Your task to perform on an android device: choose inbox layout in the gmail app Image 0: 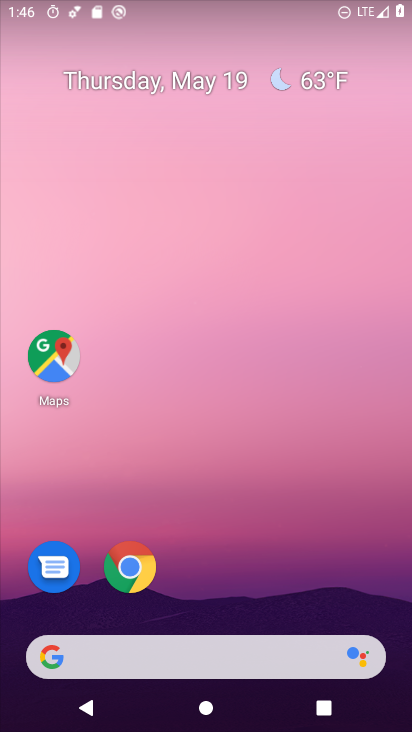
Step 0: press home button
Your task to perform on an android device: choose inbox layout in the gmail app Image 1: 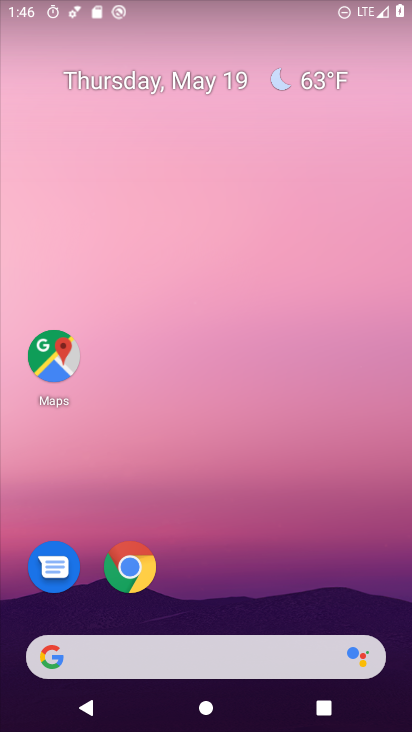
Step 1: drag from (158, 663) to (302, 108)
Your task to perform on an android device: choose inbox layout in the gmail app Image 2: 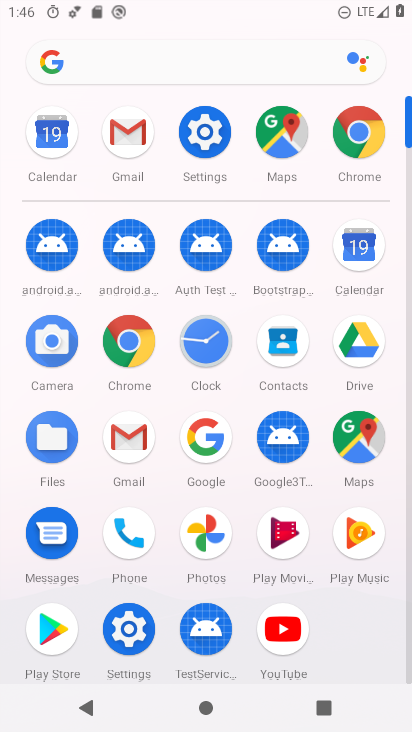
Step 2: click (129, 142)
Your task to perform on an android device: choose inbox layout in the gmail app Image 3: 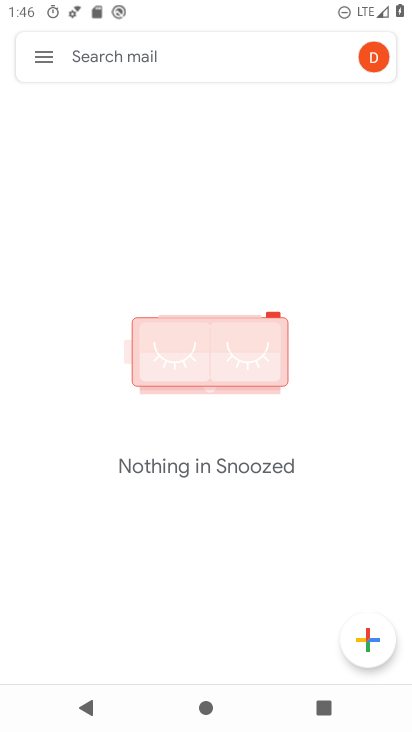
Step 3: click (43, 54)
Your task to perform on an android device: choose inbox layout in the gmail app Image 4: 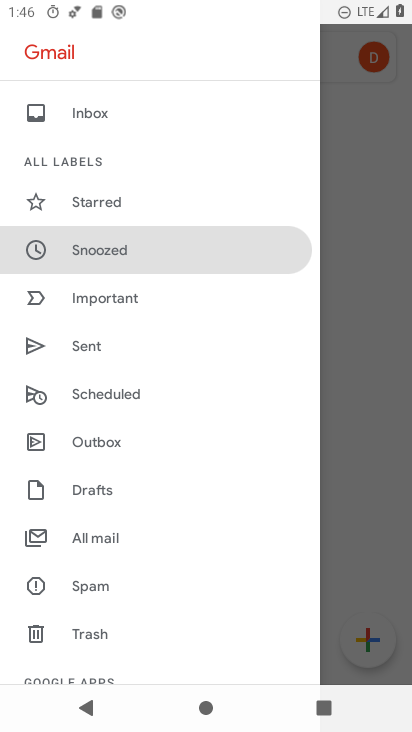
Step 4: drag from (168, 667) to (308, 239)
Your task to perform on an android device: choose inbox layout in the gmail app Image 5: 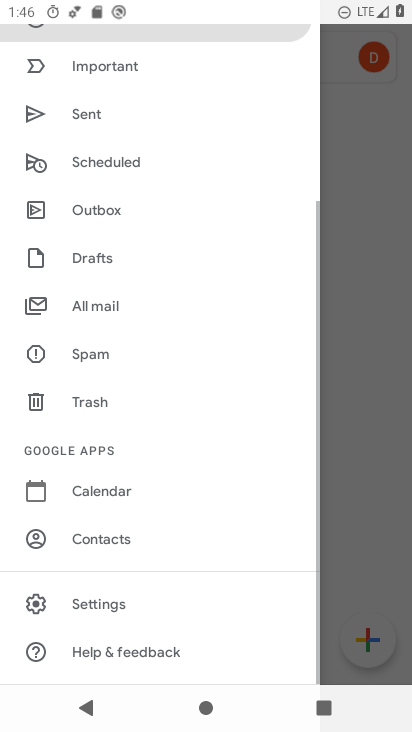
Step 5: click (115, 604)
Your task to perform on an android device: choose inbox layout in the gmail app Image 6: 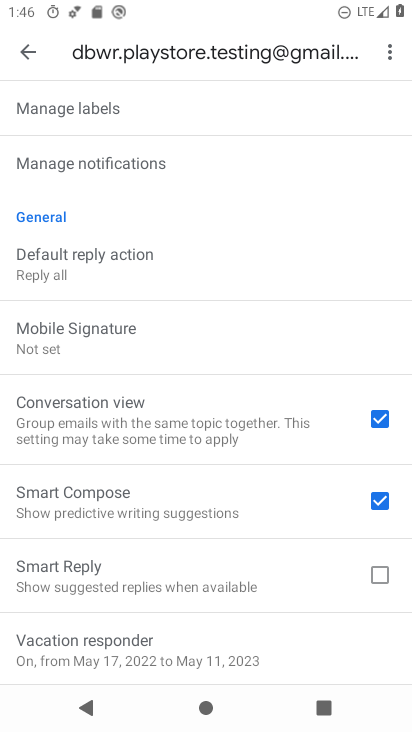
Step 6: drag from (256, 309) to (206, 464)
Your task to perform on an android device: choose inbox layout in the gmail app Image 7: 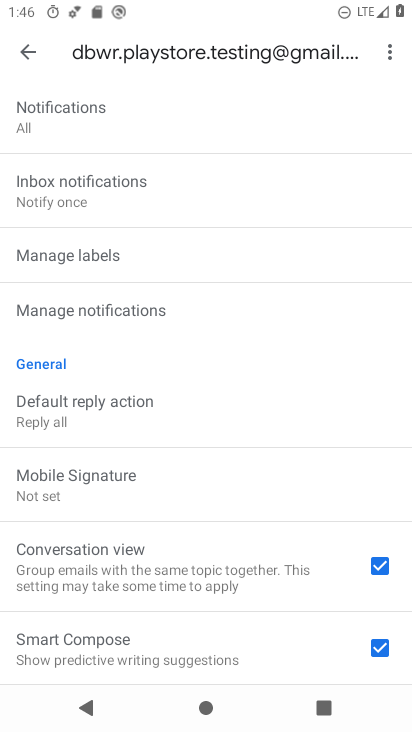
Step 7: drag from (266, 101) to (204, 511)
Your task to perform on an android device: choose inbox layout in the gmail app Image 8: 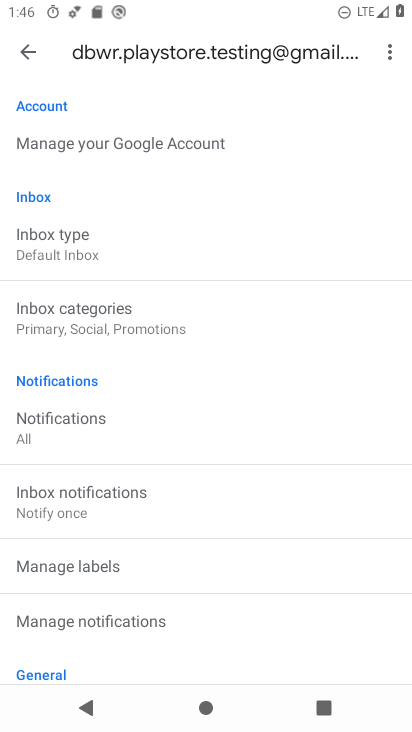
Step 8: click (84, 249)
Your task to perform on an android device: choose inbox layout in the gmail app Image 9: 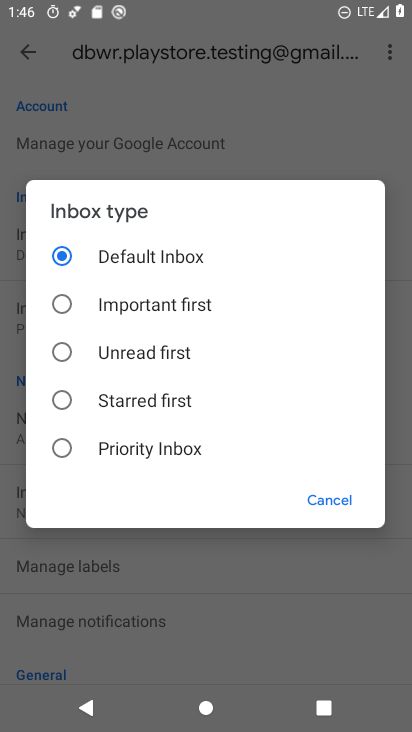
Step 9: click (58, 455)
Your task to perform on an android device: choose inbox layout in the gmail app Image 10: 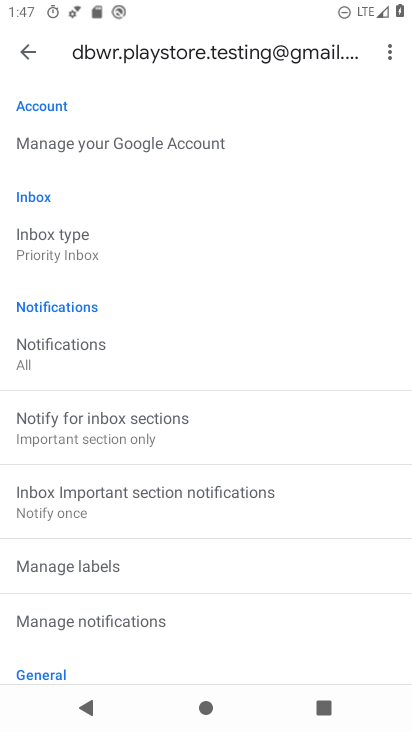
Step 10: task complete